Your task to perform on an android device: open device folders in google photos Image 0: 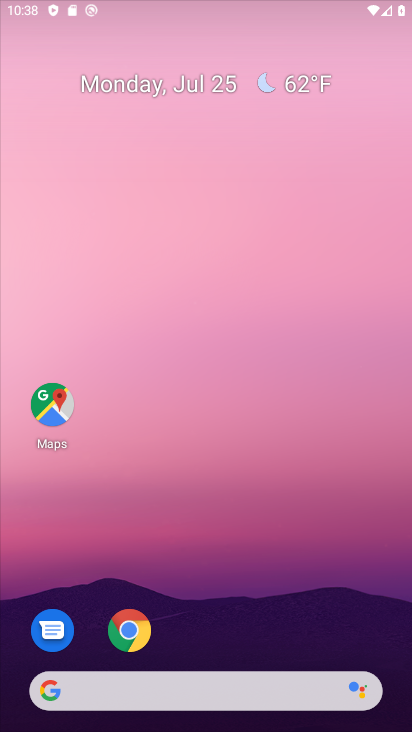
Step 0: drag from (183, 580) to (168, 374)
Your task to perform on an android device: open device folders in google photos Image 1: 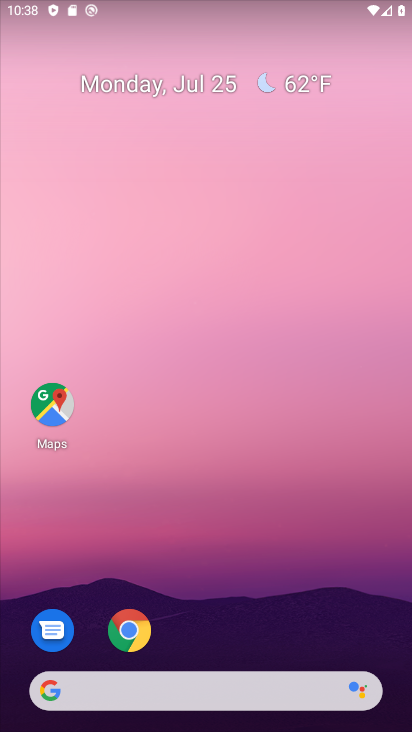
Step 1: drag from (161, 626) to (214, 325)
Your task to perform on an android device: open device folders in google photos Image 2: 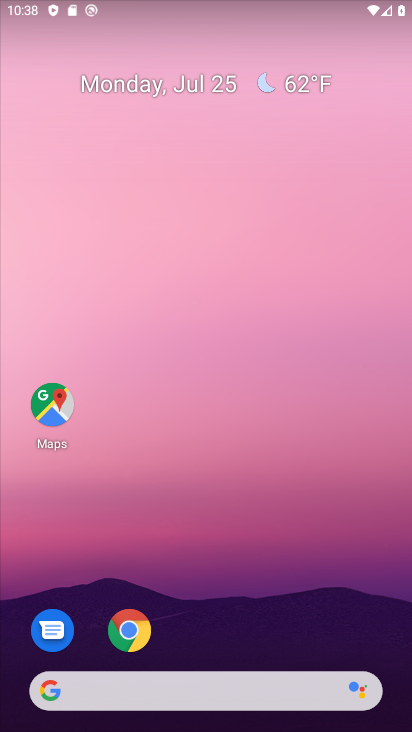
Step 2: drag from (218, 466) to (242, 107)
Your task to perform on an android device: open device folders in google photos Image 3: 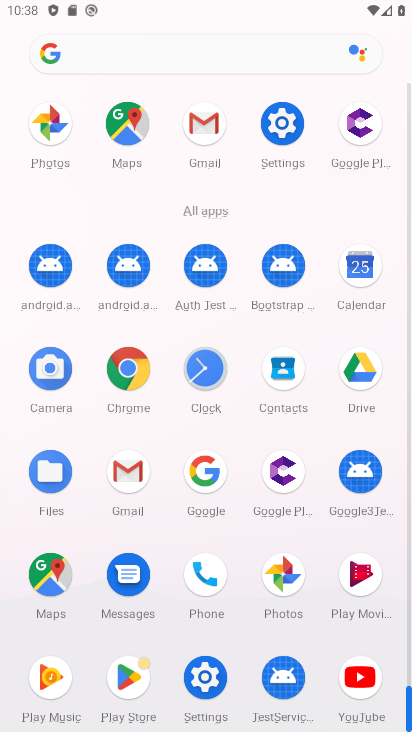
Step 3: click (278, 559)
Your task to perform on an android device: open device folders in google photos Image 4: 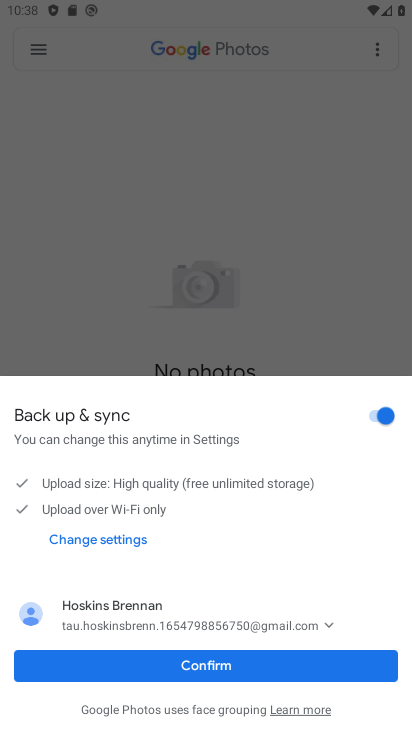
Step 4: click (194, 661)
Your task to perform on an android device: open device folders in google photos Image 5: 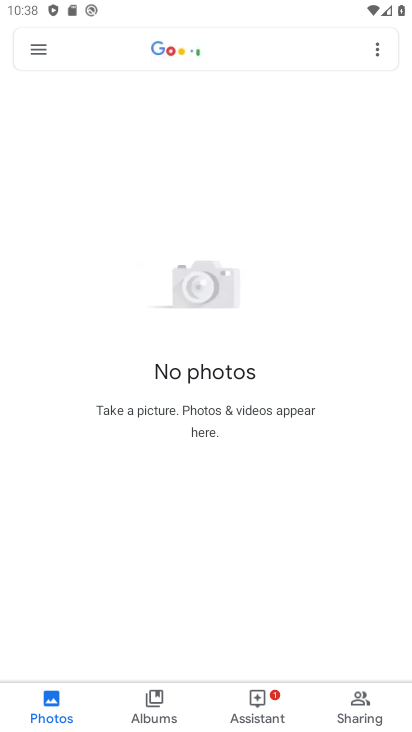
Step 5: click (43, 61)
Your task to perform on an android device: open device folders in google photos Image 6: 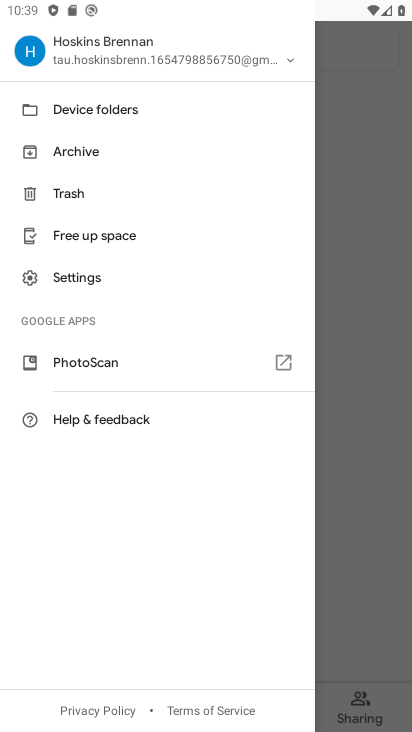
Step 6: click (95, 116)
Your task to perform on an android device: open device folders in google photos Image 7: 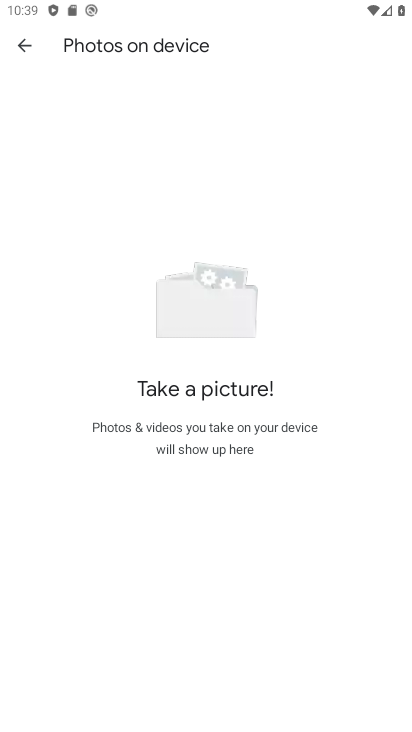
Step 7: task complete